Your task to perform on an android device: Go to Google maps Image 0: 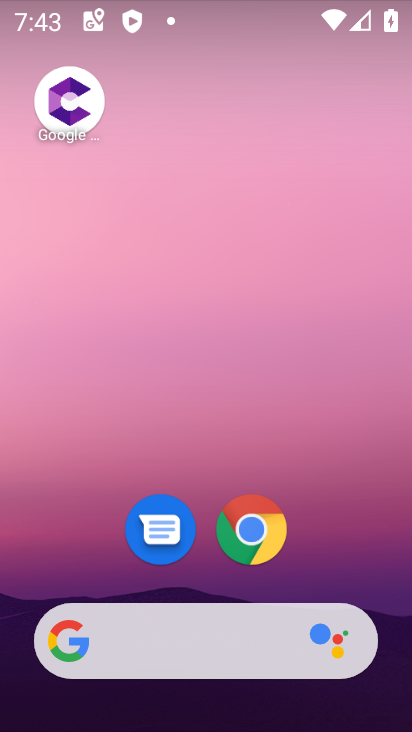
Step 0: click (253, 515)
Your task to perform on an android device: Go to Google maps Image 1: 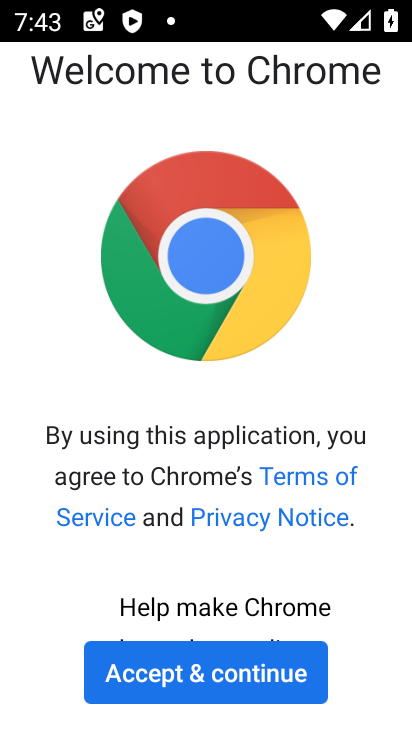
Step 1: click (164, 660)
Your task to perform on an android device: Go to Google maps Image 2: 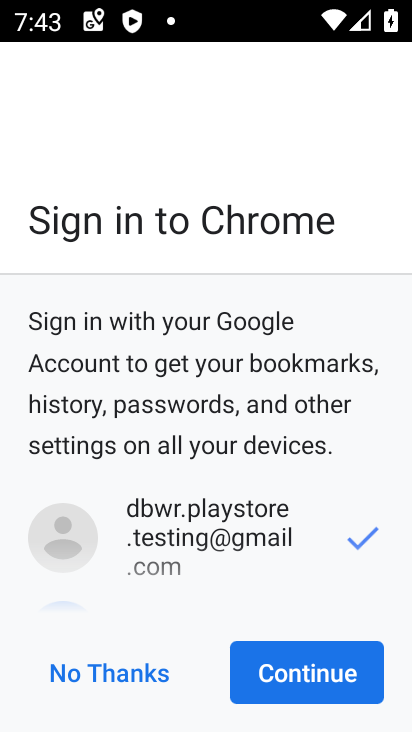
Step 2: click (264, 654)
Your task to perform on an android device: Go to Google maps Image 3: 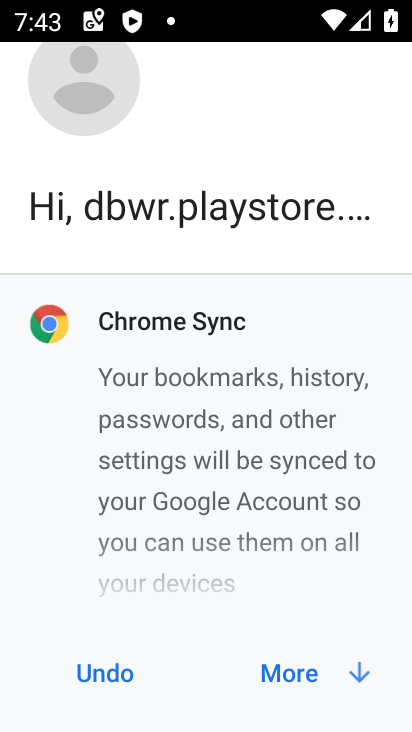
Step 3: click (264, 654)
Your task to perform on an android device: Go to Google maps Image 4: 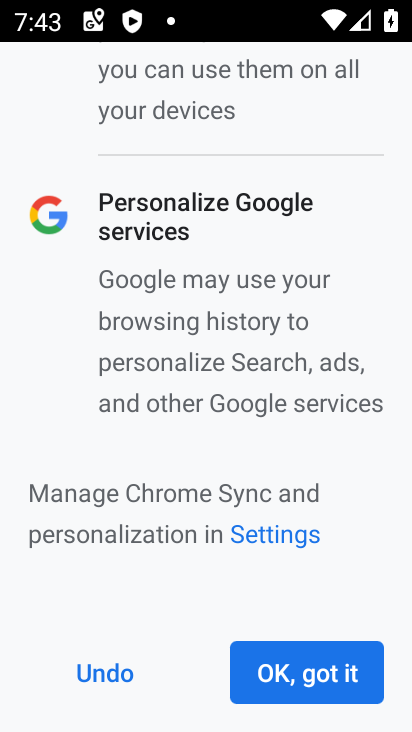
Step 4: click (264, 654)
Your task to perform on an android device: Go to Google maps Image 5: 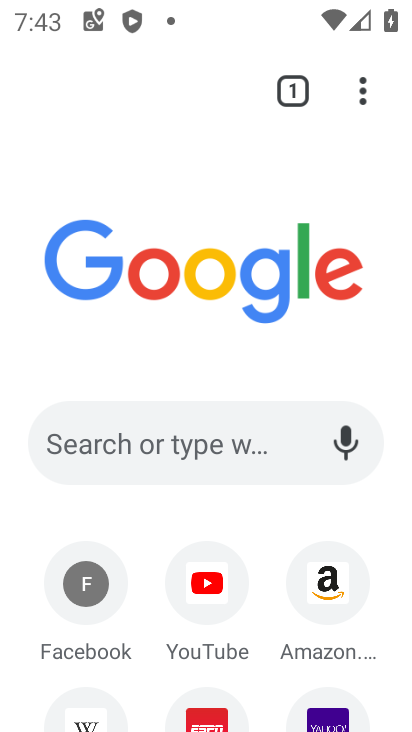
Step 5: click (227, 430)
Your task to perform on an android device: Go to Google maps Image 6: 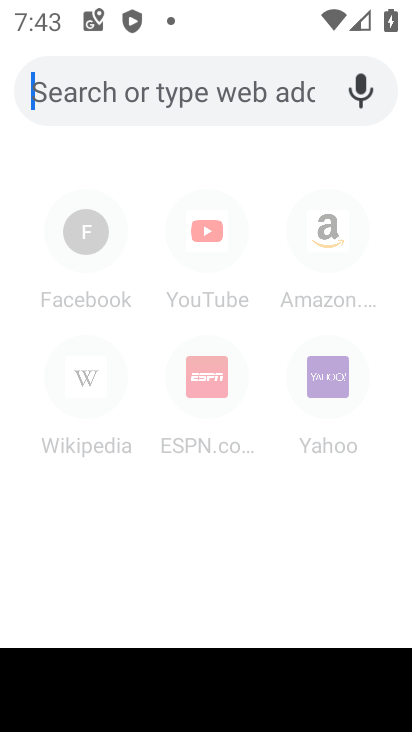
Step 6: type "google.com"
Your task to perform on an android device: Go to Google maps Image 7: 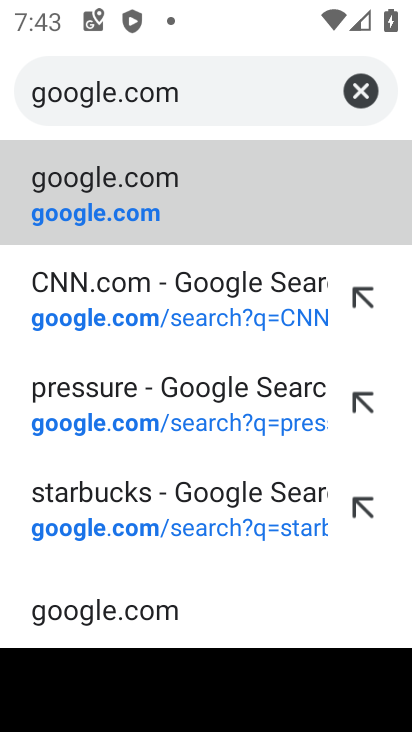
Step 7: click (129, 201)
Your task to perform on an android device: Go to Google maps Image 8: 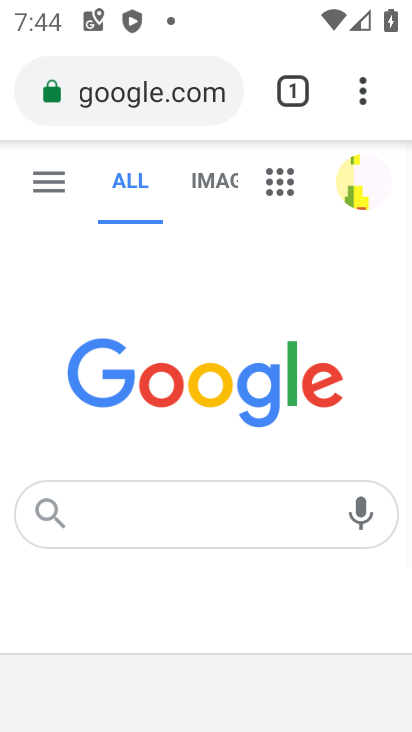
Step 8: task complete